Your task to perform on an android device: Open Google Image 0: 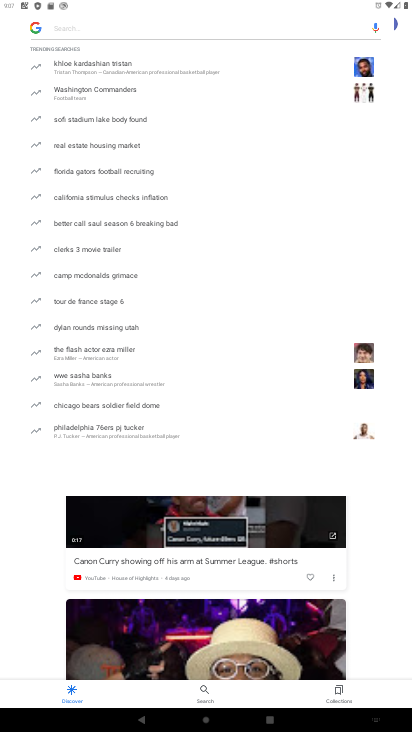
Step 0: press home button
Your task to perform on an android device: Open Google Image 1: 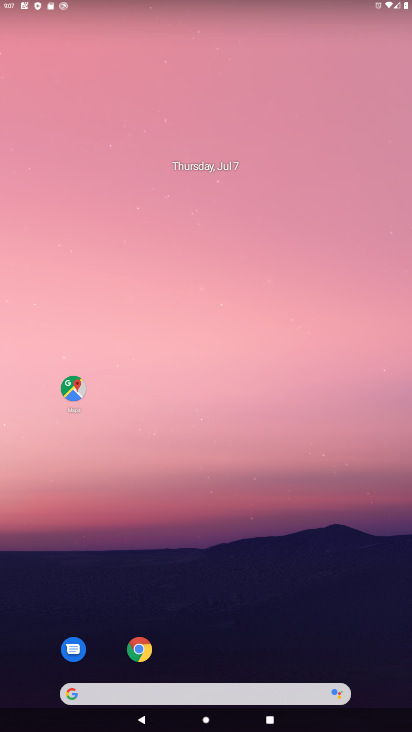
Step 1: drag from (251, 685) to (361, 67)
Your task to perform on an android device: Open Google Image 2: 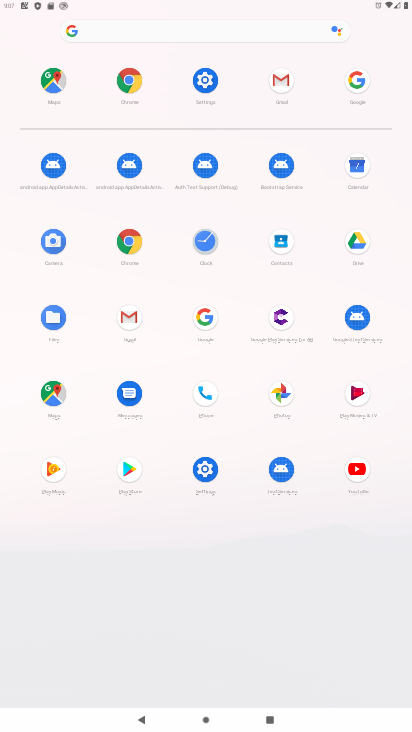
Step 2: click (199, 316)
Your task to perform on an android device: Open Google Image 3: 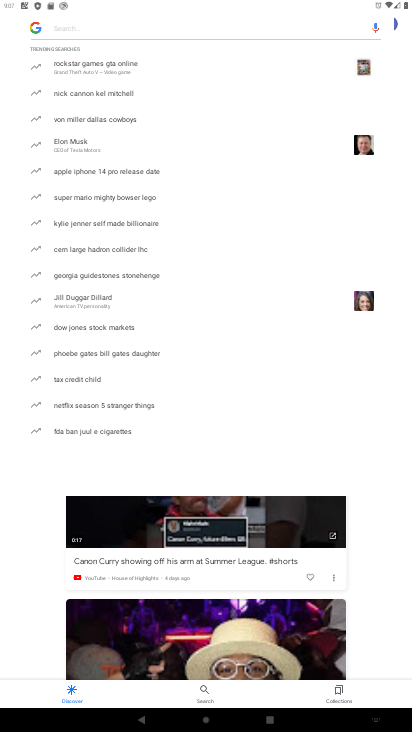
Step 3: task complete